Your task to perform on an android device: Open wifi settings Image 0: 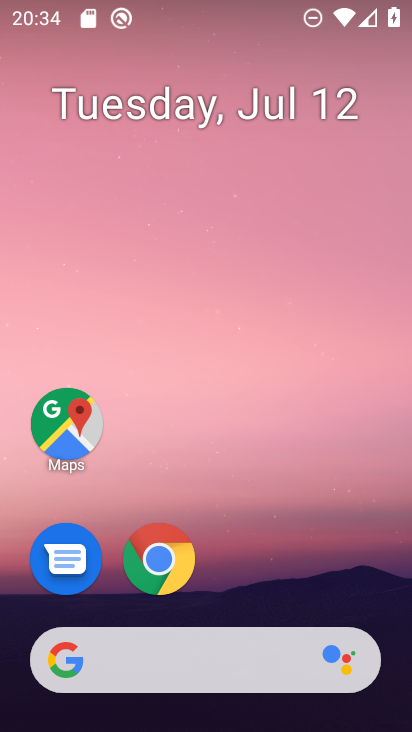
Step 0: drag from (386, 563) to (377, 196)
Your task to perform on an android device: Open wifi settings Image 1: 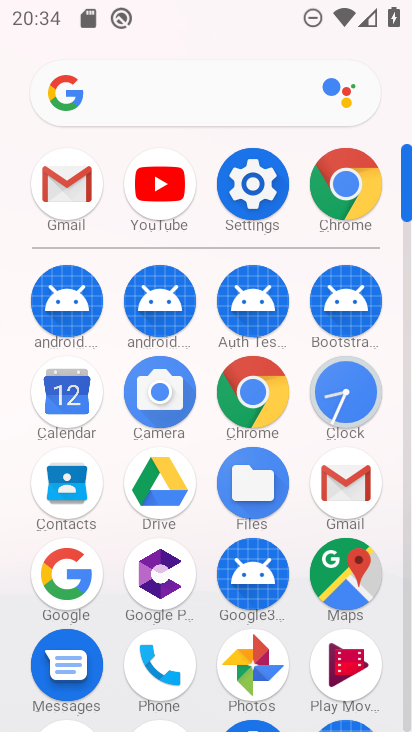
Step 1: click (256, 190)
Your task to perform on an android device: Open wifi settings Image 2: 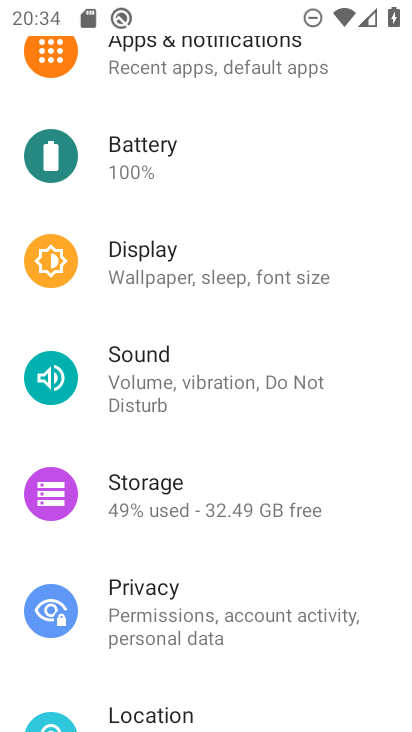
Step 2: drag from (389, 575) to (390, 443)
Your task to perform on an android device: Open wifi settings Image 3: 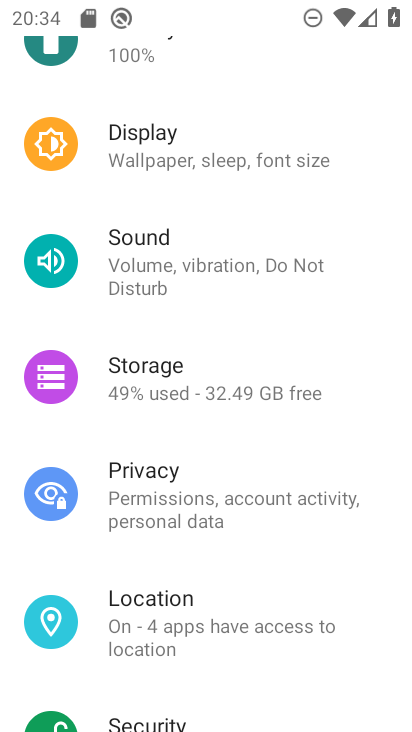
Step 3: drag from (389, 592) to (398, 456)
Your task to perform on an android device: Open wifi settings Image 4: 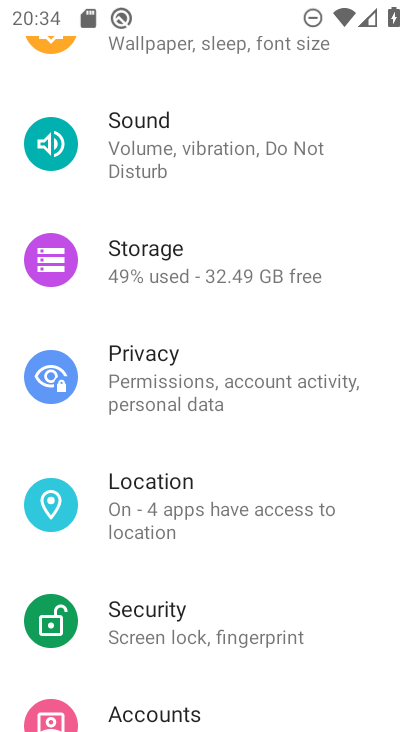
Step 4: drag from (363, 562) to (373, 418)
Your task to perform on an android device: Open wifi settings Image 5: 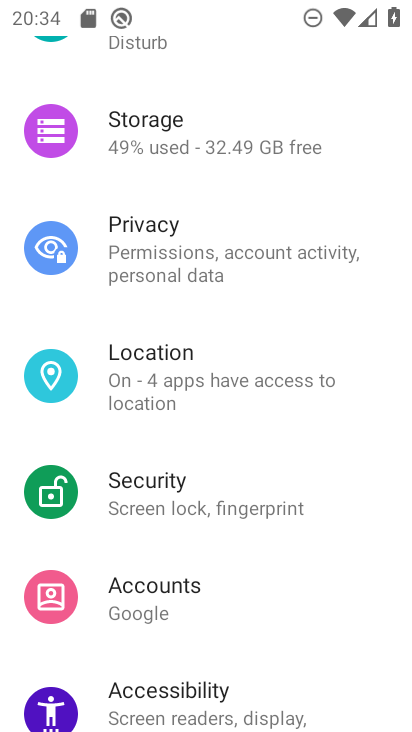
Step 5: drag from (355, 549) to (364, 399)
Your task to perform on an android device: Open wifi settings Image 6: 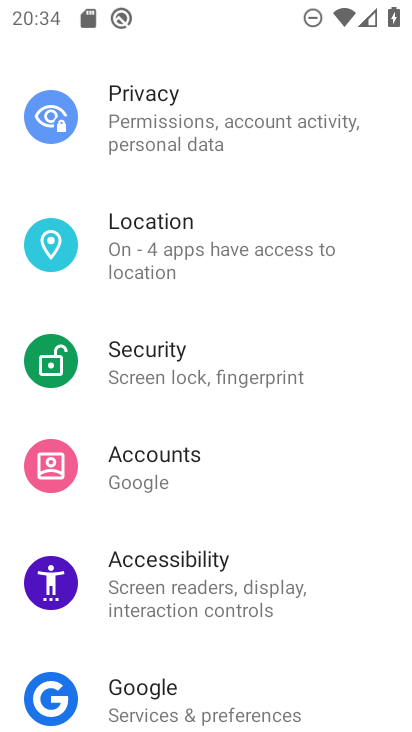
Step 6: drag from (359, 589) to (359, 416)
Your task to perform on an android device: Open wifi settings Image 7: 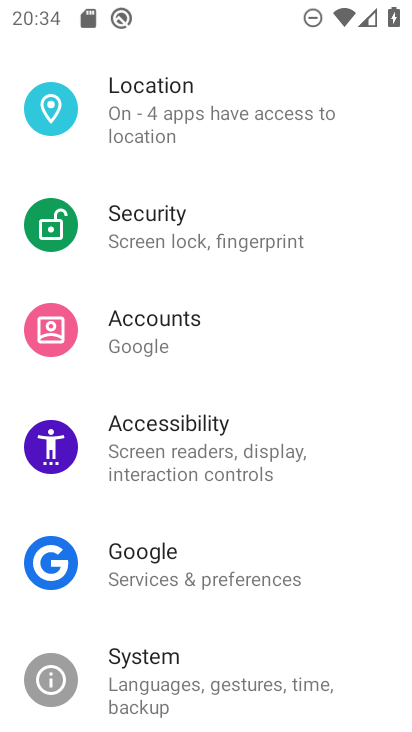
Step 7: drag from (362, 162) to (359, 296)
Your task to perform on an android device: Open wifi settings Image 8: 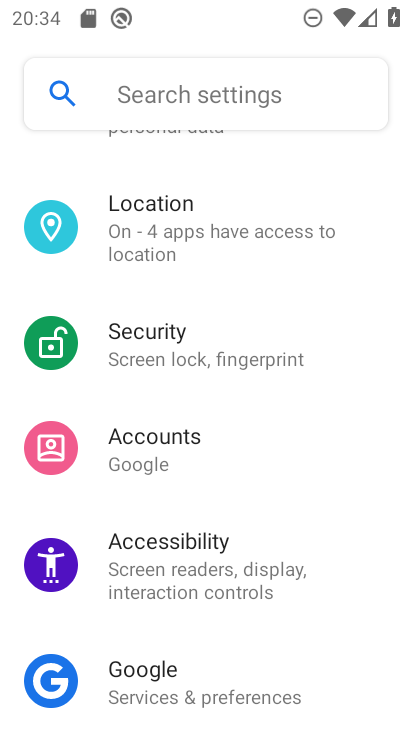
Step 8: drag from (356, 208) to (359, 306)
Your task to perform on an android device: Open wifi settings Image 9: 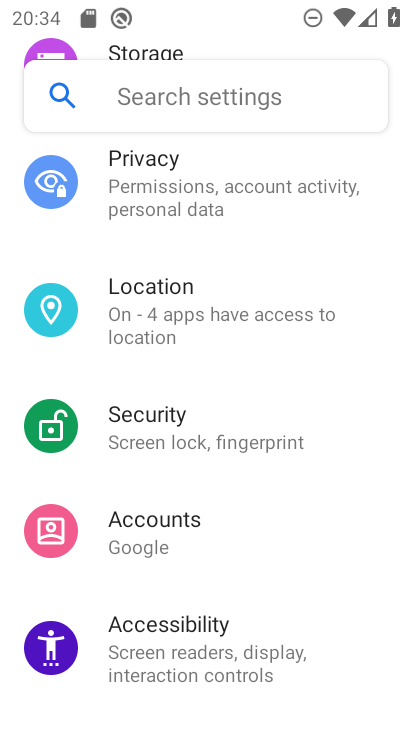
Step 9: drag from (366, 199) to (367, 338)
Your task to perform on an android device: Open wifi settings Image 10: 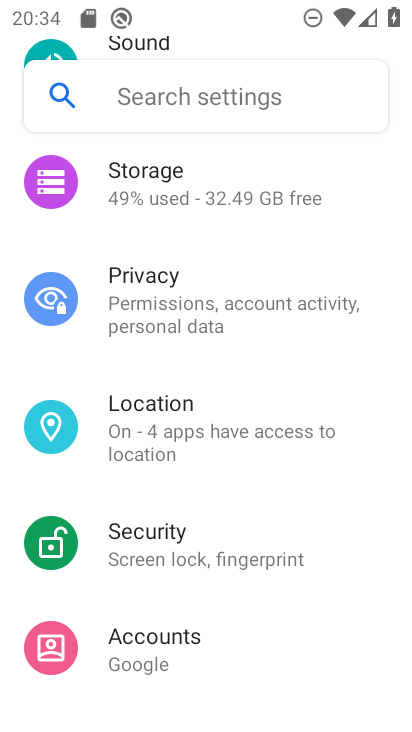
Step 10: drag from (374, 218) to (379, 321)
Your task to perform on an android device: Open wifi settings Image 11: 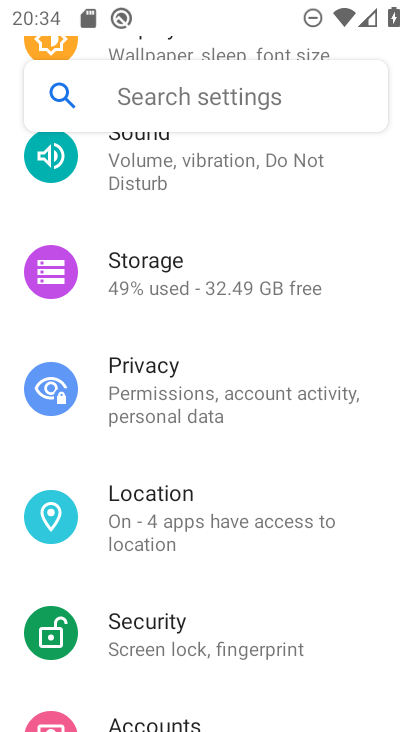
Step 11: drag from (367, 196) to (372, 322)
Your task to perform on an android device: Open wifi settings Image 12: 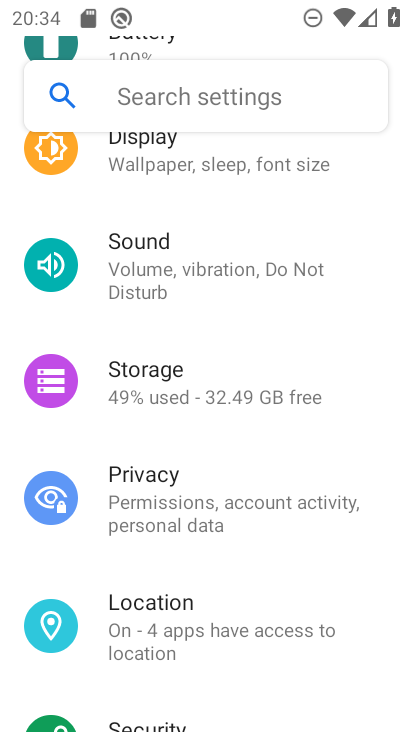
Step 12: drag from (374, 225) to (373, 372)
Your task to perform on an android device: Open wifi settings Image 13: 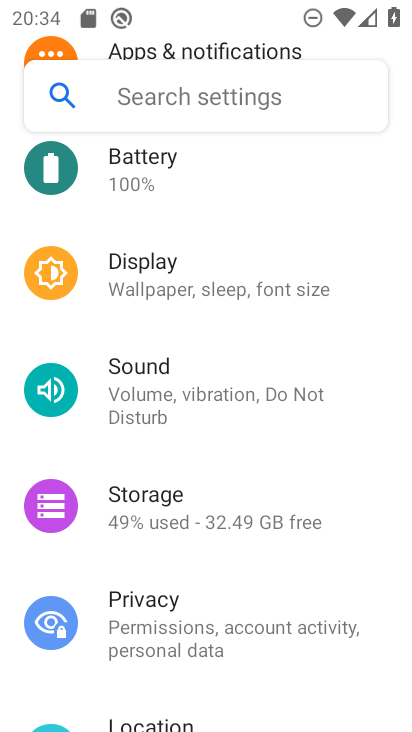
Step 13: drag from (371, 236) to (369, 369)
Your task to perform on an android device: Open wifi settings Image 14: 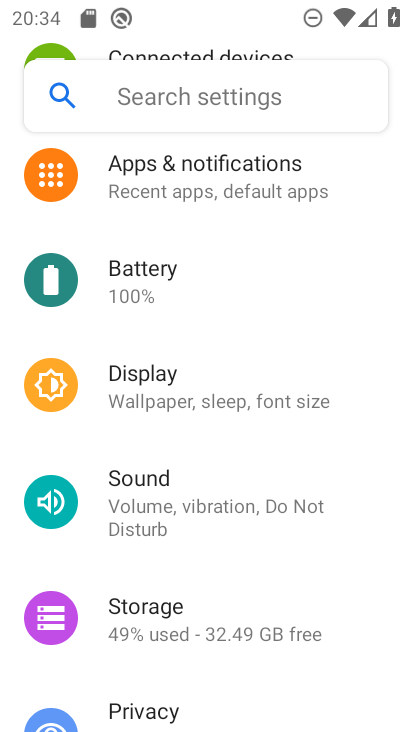
Step 14: drag from (364, 187) to (362, 334)
Your task to perform on an android device: Open wifi settings Image 15: 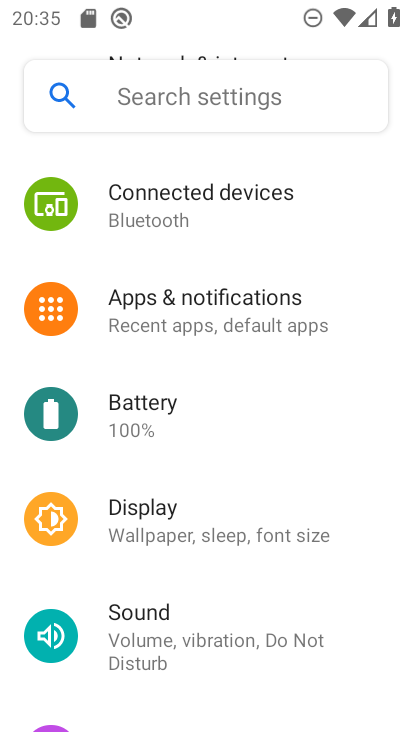
Step 15: drag from (352, 205) to (355, 365)
Your task to perform on an android device: Open wifi settings Image 16: 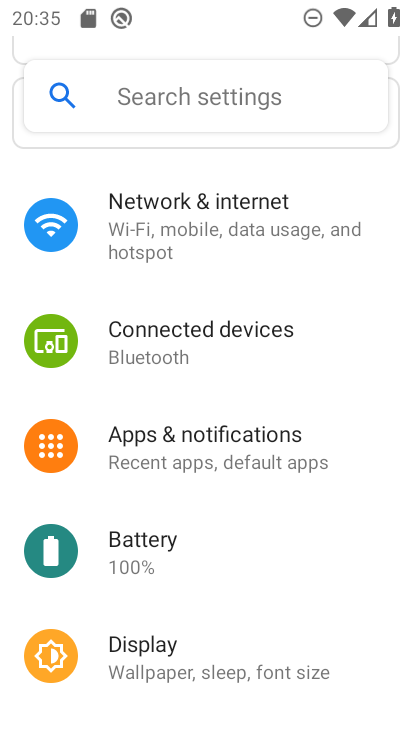
Step 16: click (298, 215)
Your task to perform on an android device: Open wifi settings Image 17: 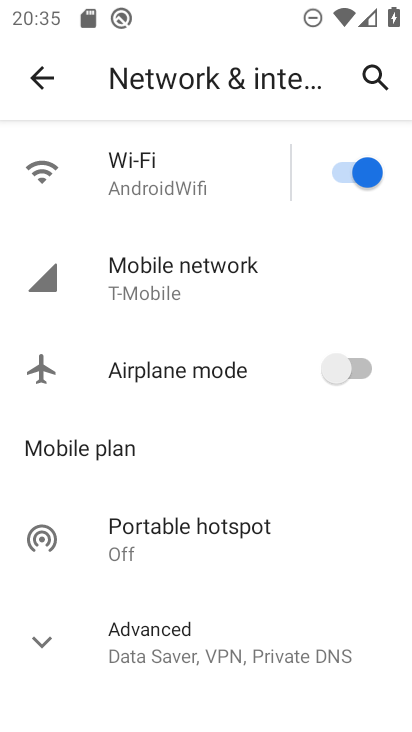
Step 17: click (173, 169)
Your task to perform on an android device: Open wifi settings Image 18: 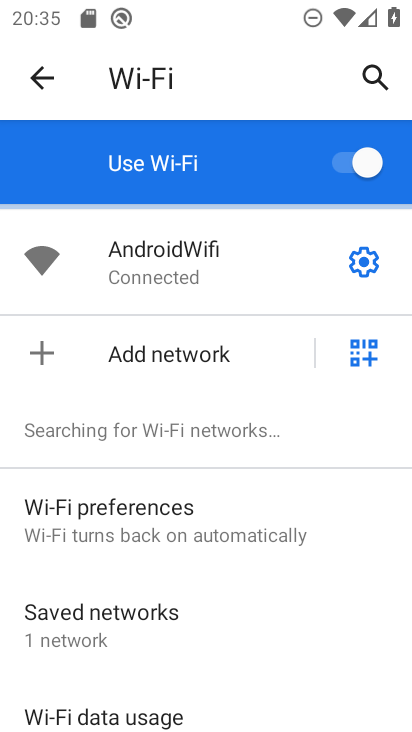
Step 18: task complete